Your task to perform on an android device: Open privacy settings Image 0: 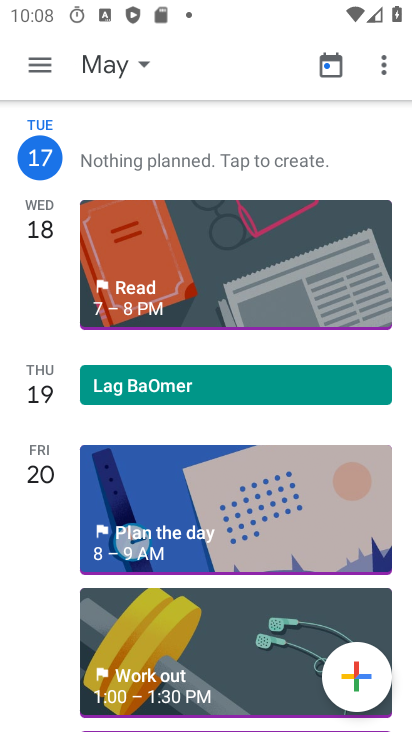
Step 0: press home button
Your task to perform on an android device: Open privacy settings Image 1: 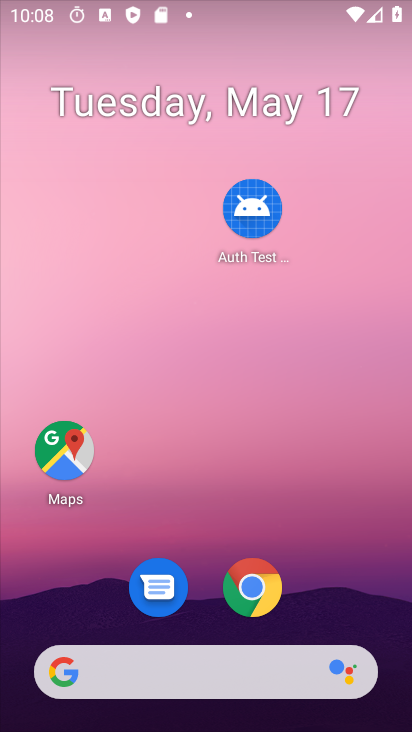
Step 1: drag from (224, 558) to (222, 129)
Your task to perform on an android device: Open privacy settings Image 2: 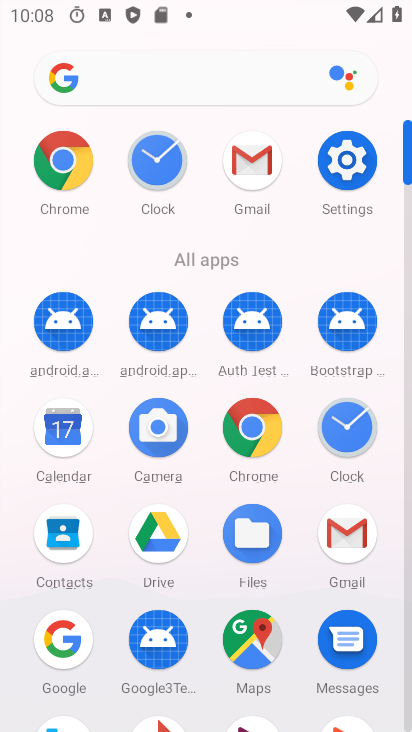
Step 2: click (354, 171)
Your task to perform on an android device: Open privacy settings Image 3: 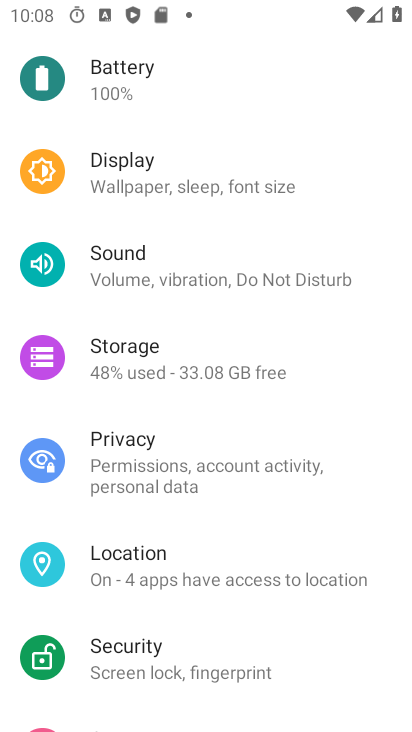
Step 3: click (144, 459)
Your task to perform on an android device: Open privacy settings Image 4: 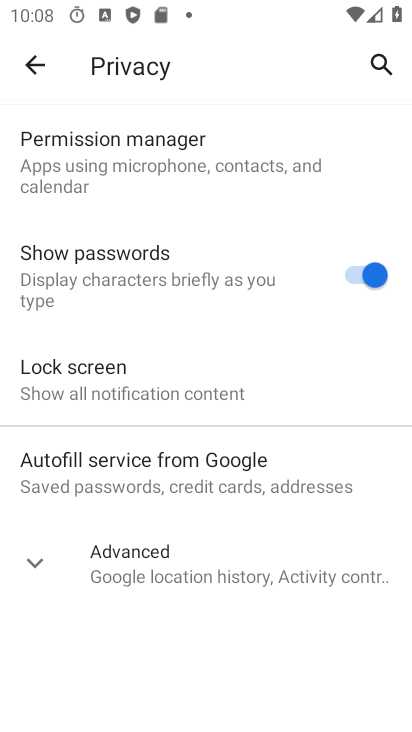
Step 4: click (165, 566)
Your task to perform on an android device: Open privacy settings Image 5: 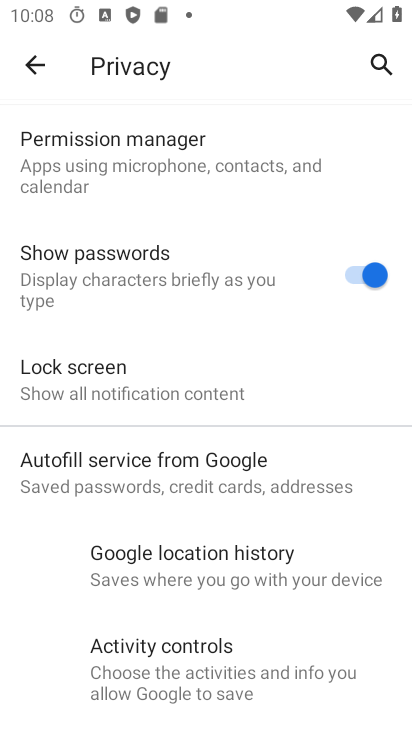
Step 5: drag from (199, 429) to (206, 378)
Your task to perform on an android device: Open privacy settings Image 6: 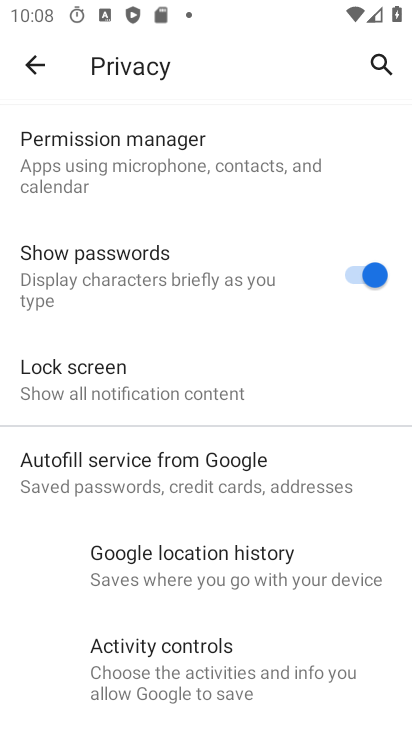
Step 6: click (166, 561)
Your task to perform on an android device: Open privacy settings Image 7: 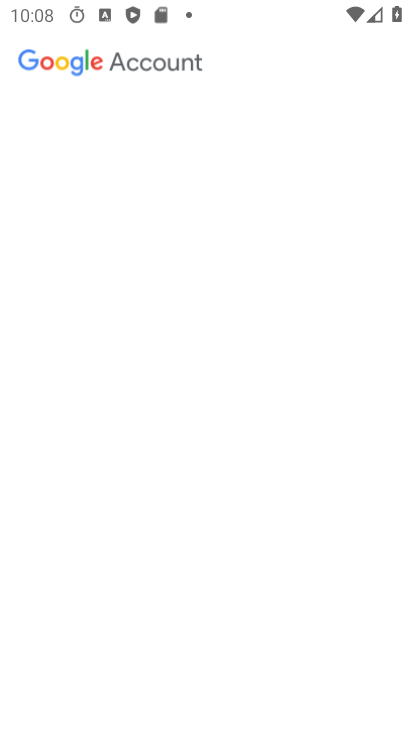
Step 7: task complete